Your task to perform on an android device: Open Android settings Image 0: 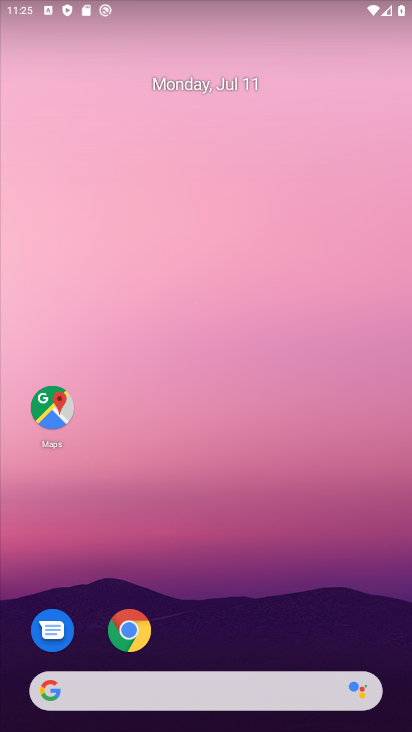
Step 0: drag from (316, 623) to (288, 106)
Your task to perform on an android device: Open Android settings Image 1: 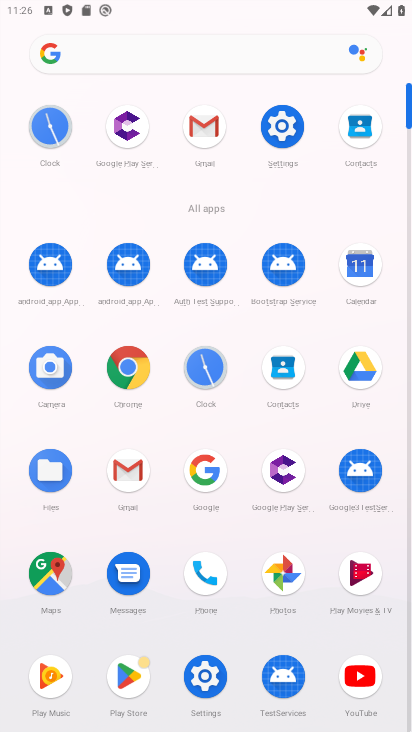
Step 1: click (205, 676)
Your task to perform on an android device: Open Android settings Image 2: 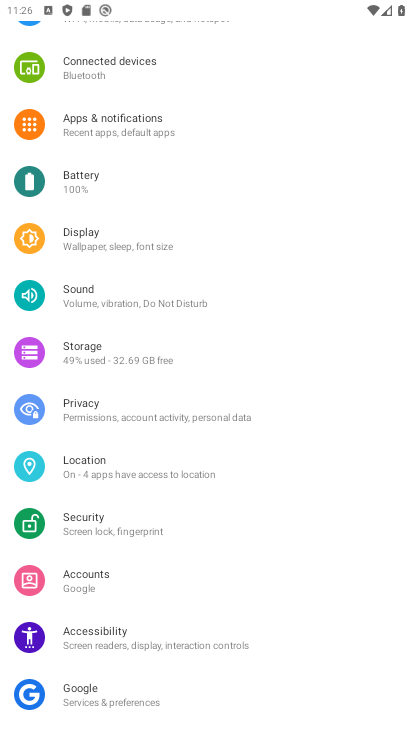
Step 2: drag from (302, 651) to (284, 298)
Your task to perform on an android device: Open Android settings Image 3: 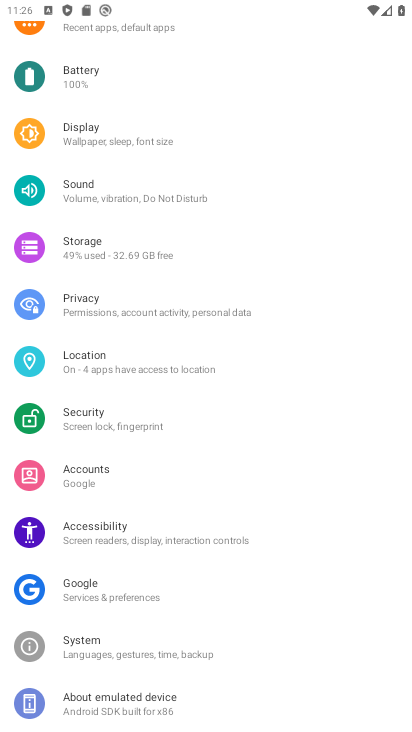
Step 3: click (89, 690)
Your task to perform on an android device: Open Android settings Image 4: 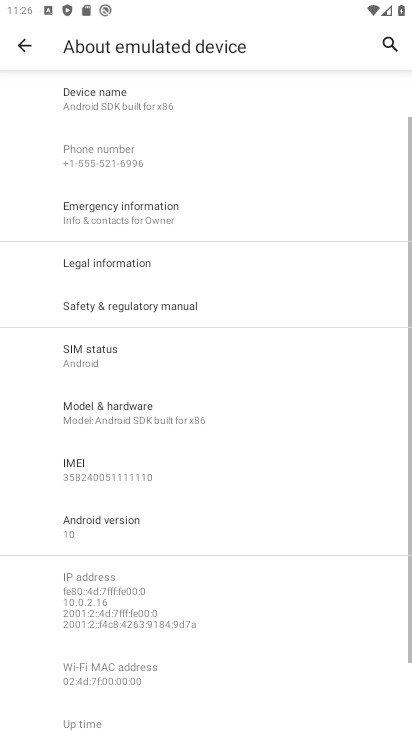
Step 4: task complete